Your task to perform on an android device: snooze an email in the gmail app Image 0: 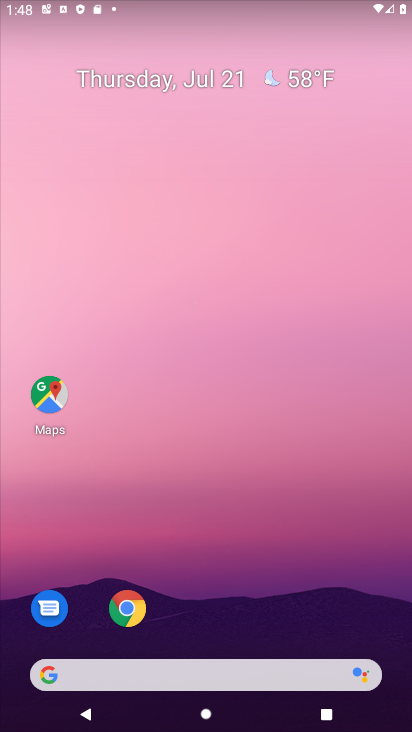
Step 0: drag from (334, 627) to (254, 8)
Your task to perform on an android device: snooze an email in the gmail app Image 1: 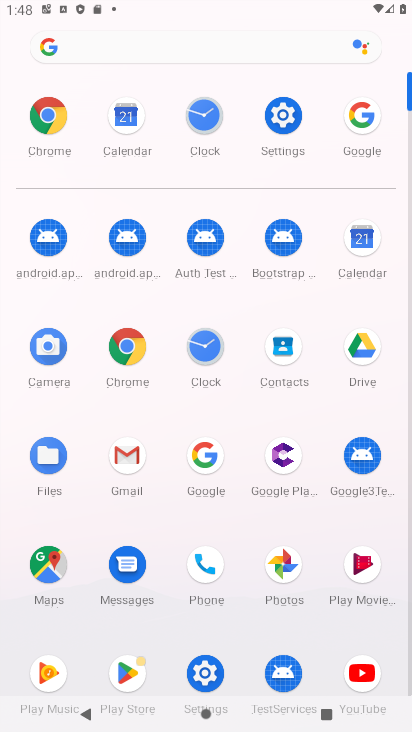
Step 1: click (130, 458)
Your task to perform on an android device: snooze an email in the gmail app Image 2: 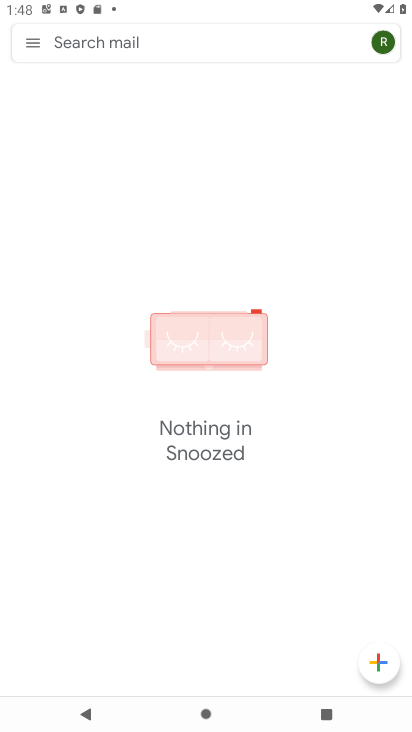
Step 2: click (30, 49)
Your task to perform on an android device: snooze an email in the gmail app Image 3: 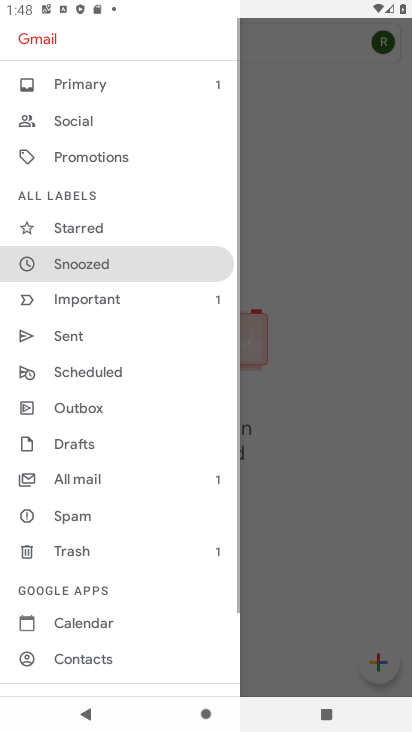
Step 3: click (66, 79)
Your task to perform on an android device: snooze an email in the gmail app Image 4: 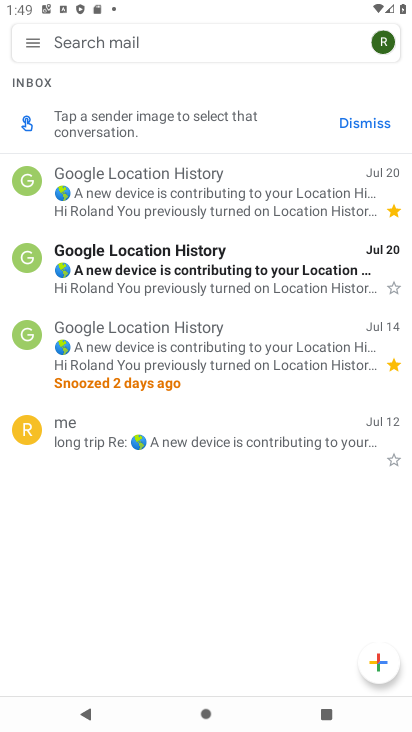
Step 4: task complete